Your task to perform on an android device: uninstall "WhatsApp Messenger" Image 0: 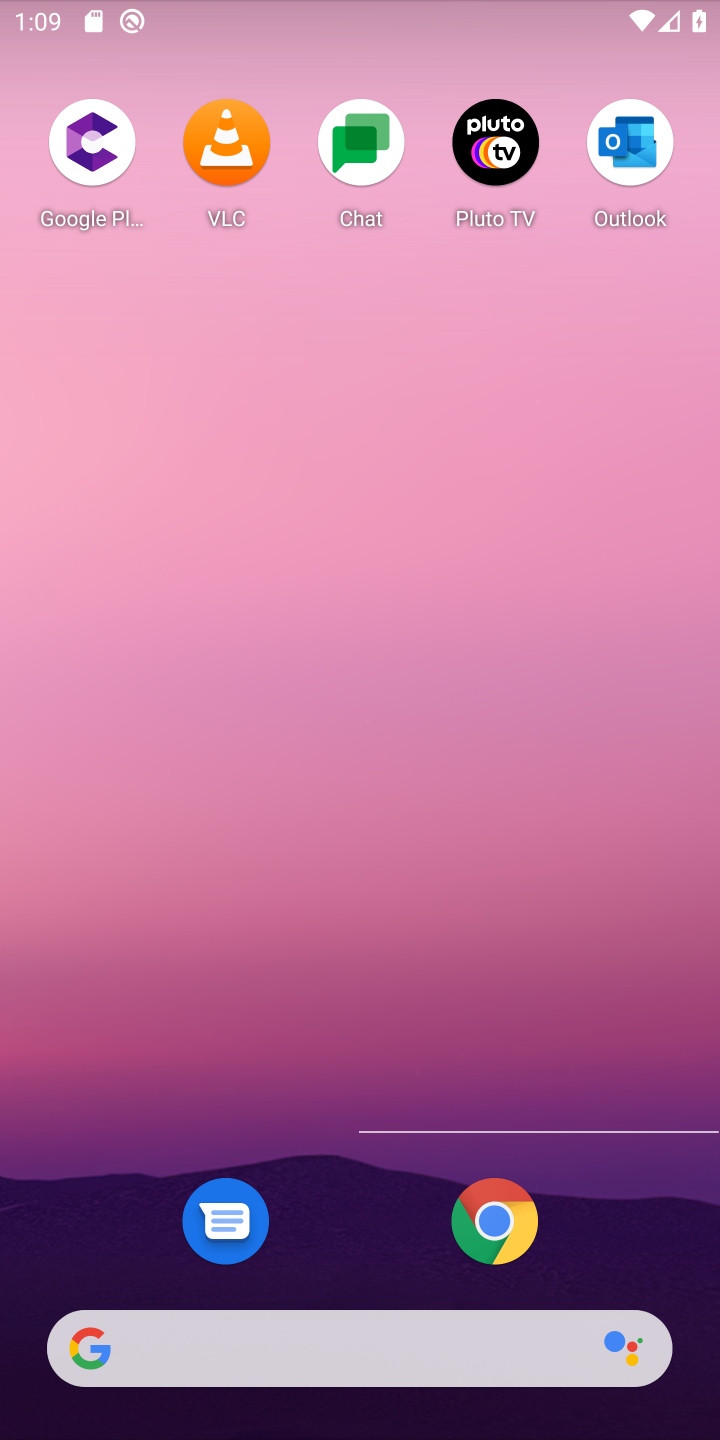
Step 0: press home button
Your task to perform on an android device: uninstall "WhatsApp Messenger" Image 1: 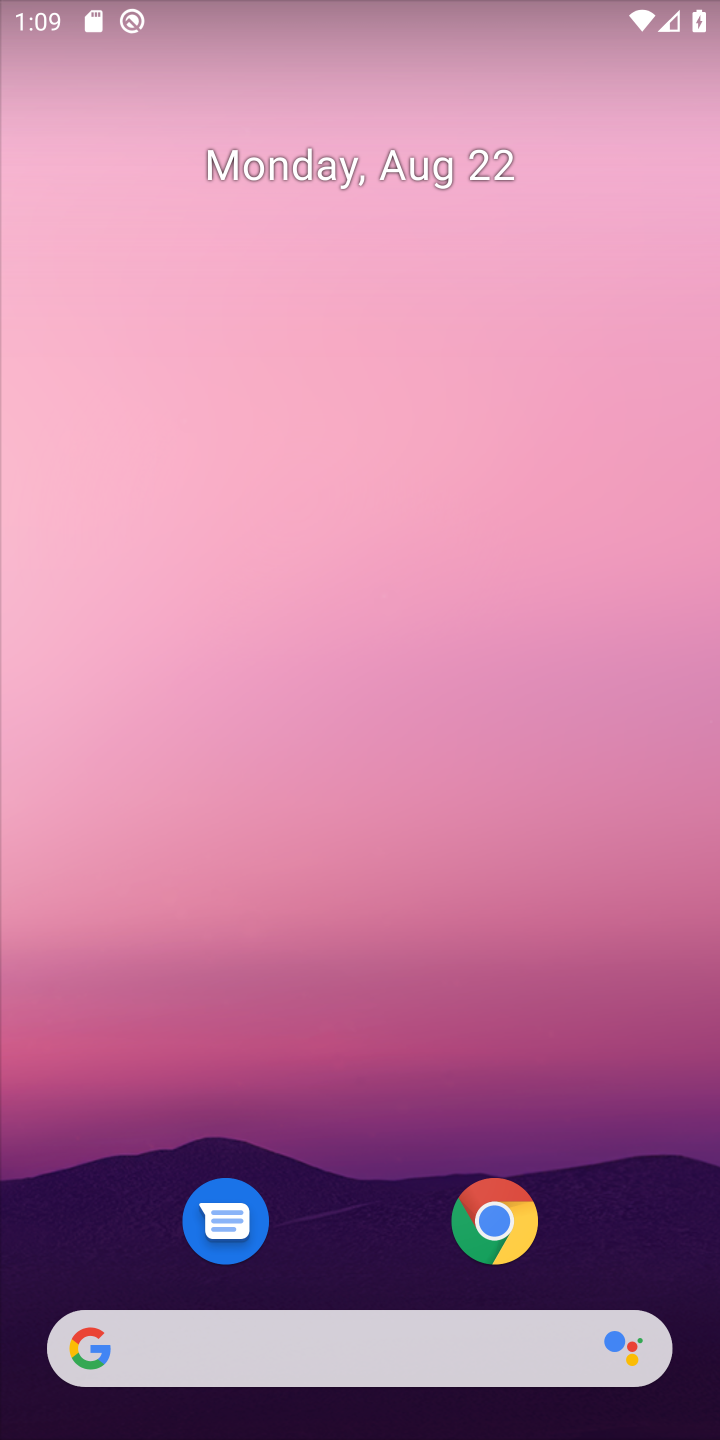
Step 1: drag from (346, 1189) to (299, 31)
Your task to perform on an android device: uninstall "WhatsApp Messenger" Image 2: 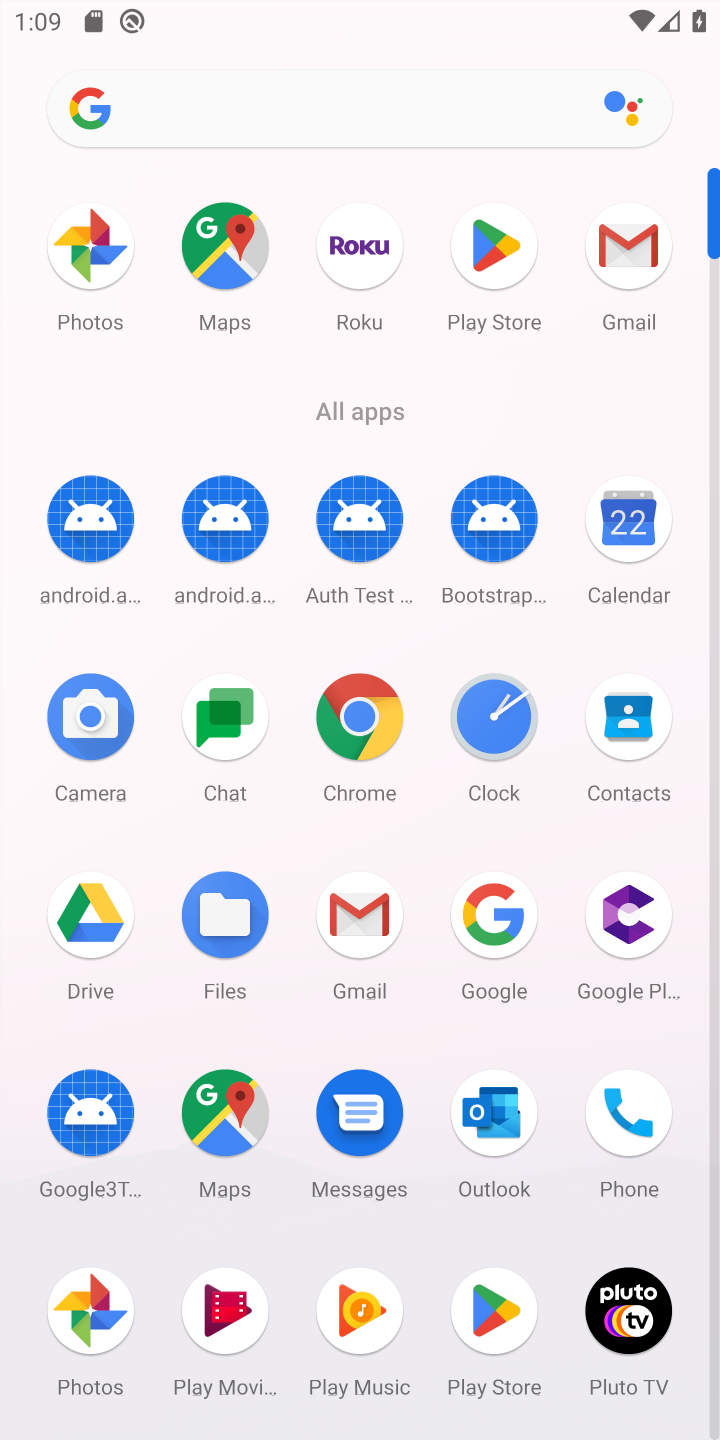
Step 2: click (484, 240)
Your task to perform on an android device: uninstall "WhatsApp Messenger" Image 3: 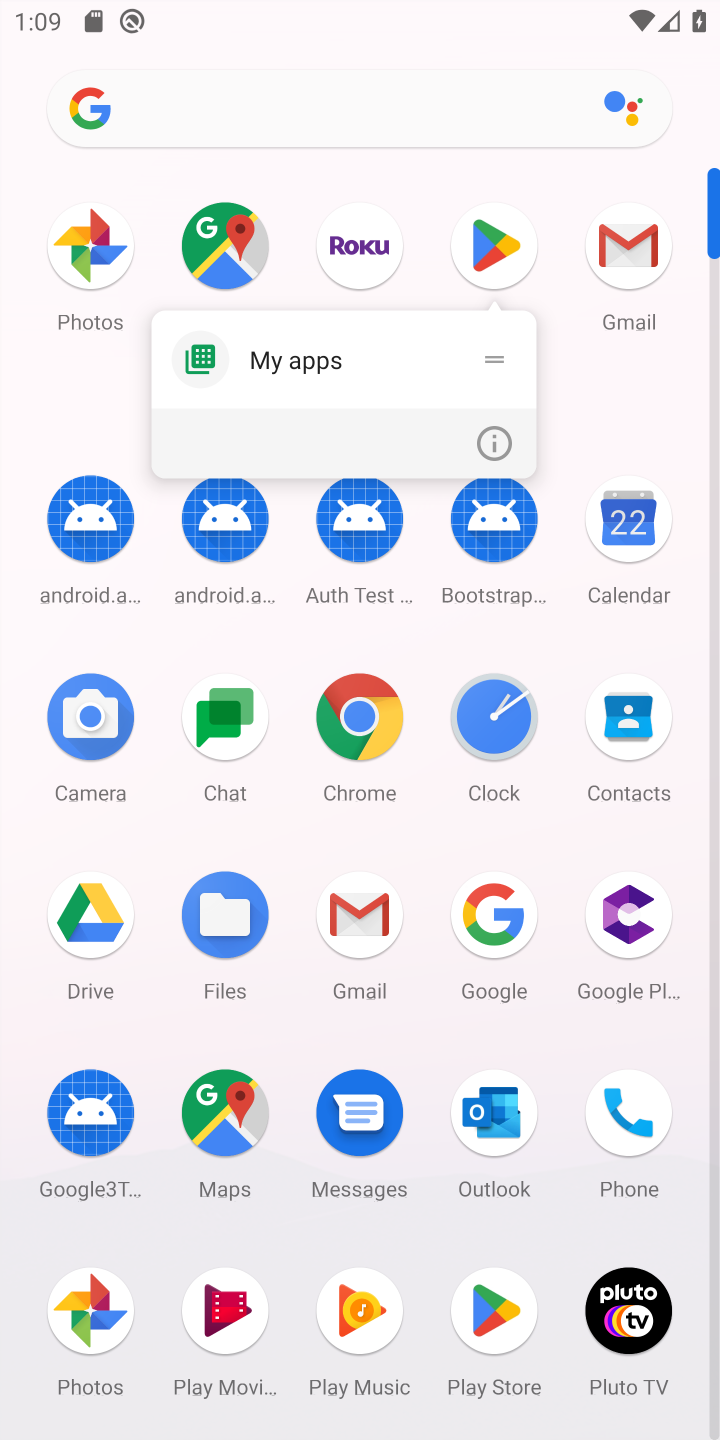
Step 3: click (490, 240)
Your task to perform on an android device: uninstall "WhatsApp Messenger" Image 4: 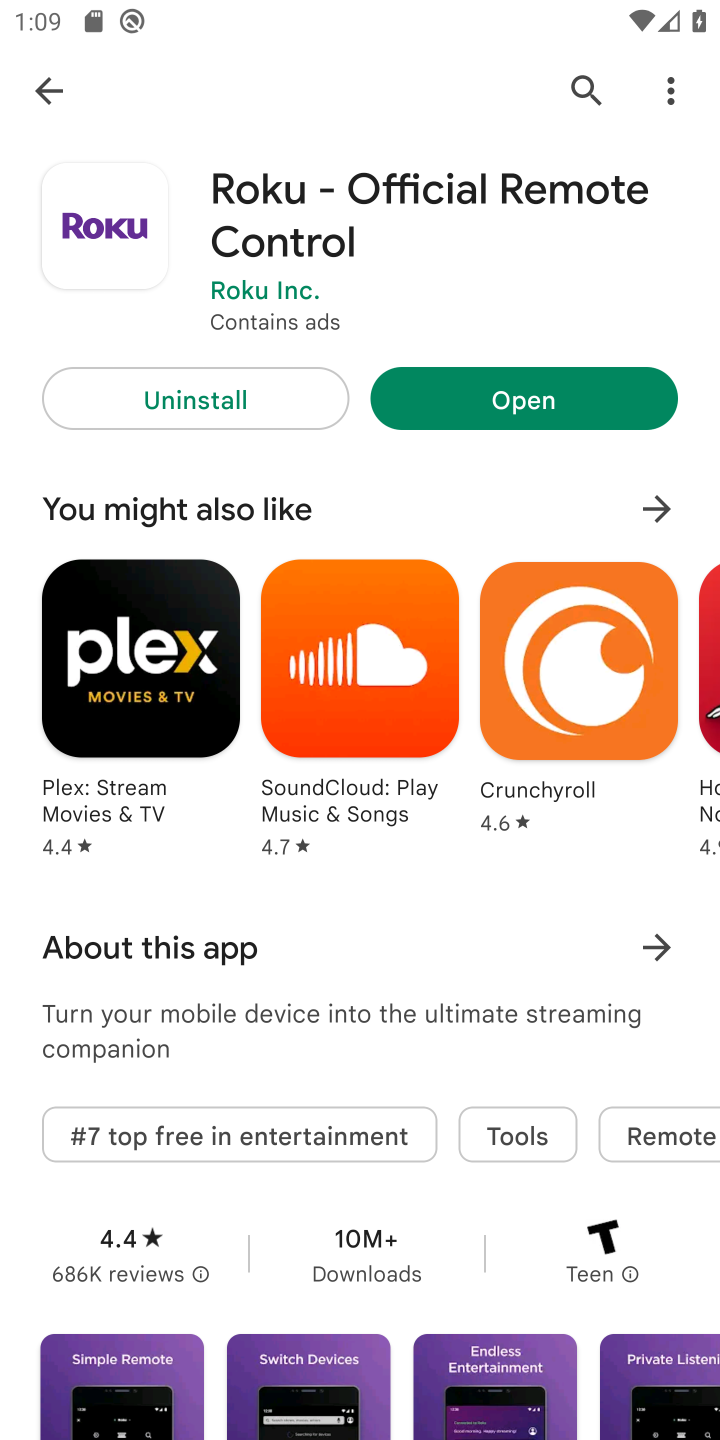
Step 4: click (584, 90)
Your task to perform on an android device: uninstall "WhatsApp Messenger" Image 5: 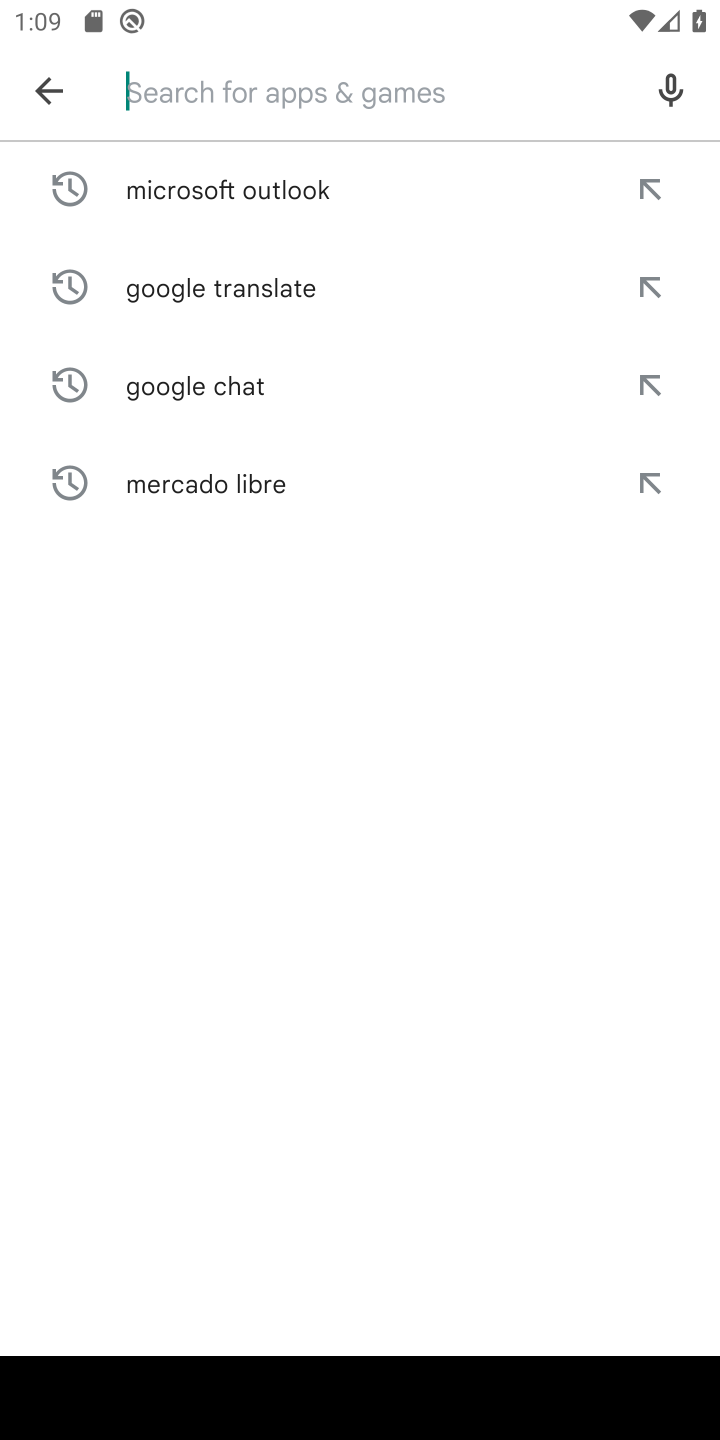
Step 5: type "WhatsApp Messenger"
Your task to perform on an android device: uninstall "WhatsApp Messenger" Image 6: 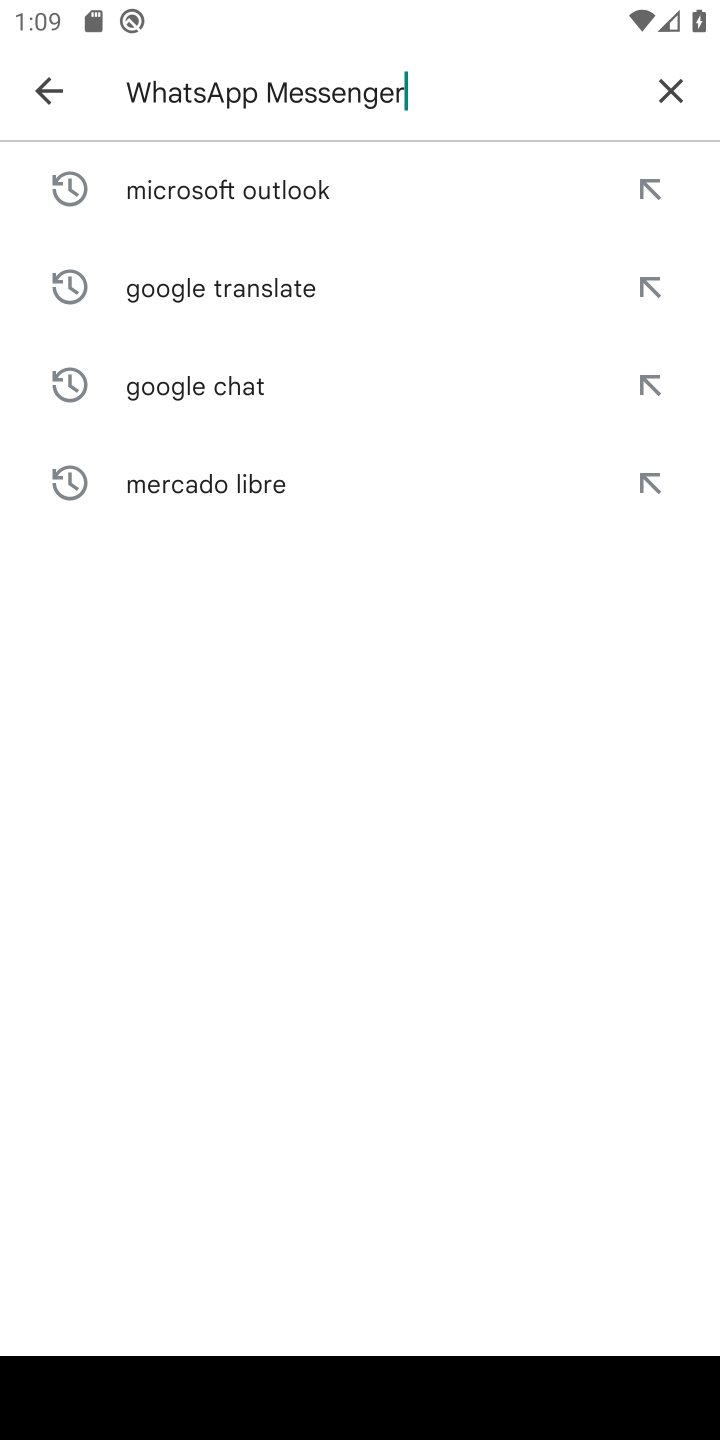
Step 6: type ""
Your task to perform on an android device: uninstall "WhatsApp Messenger" Image 7: 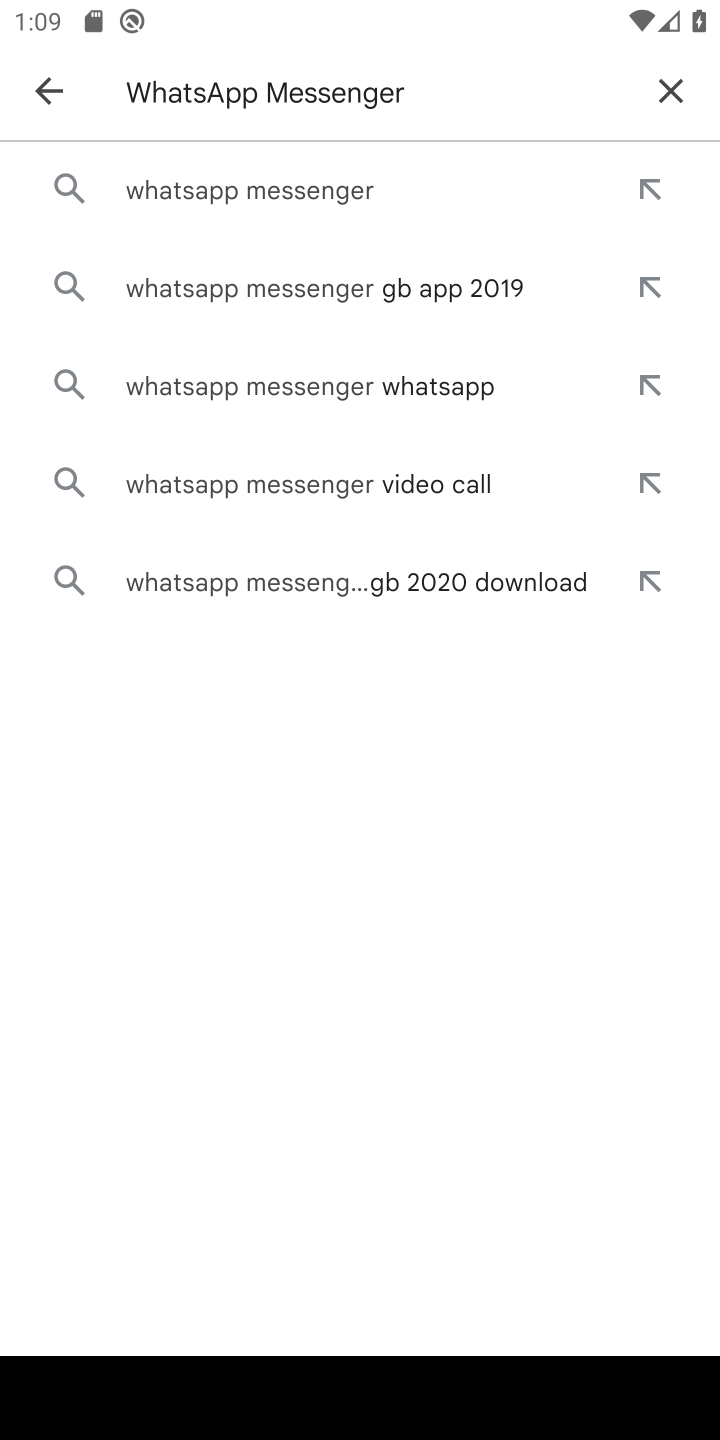
Step 7: click (370, 193)
Your task to perform on an android device: uninstall "WhatsApp Messenger" Image 8: 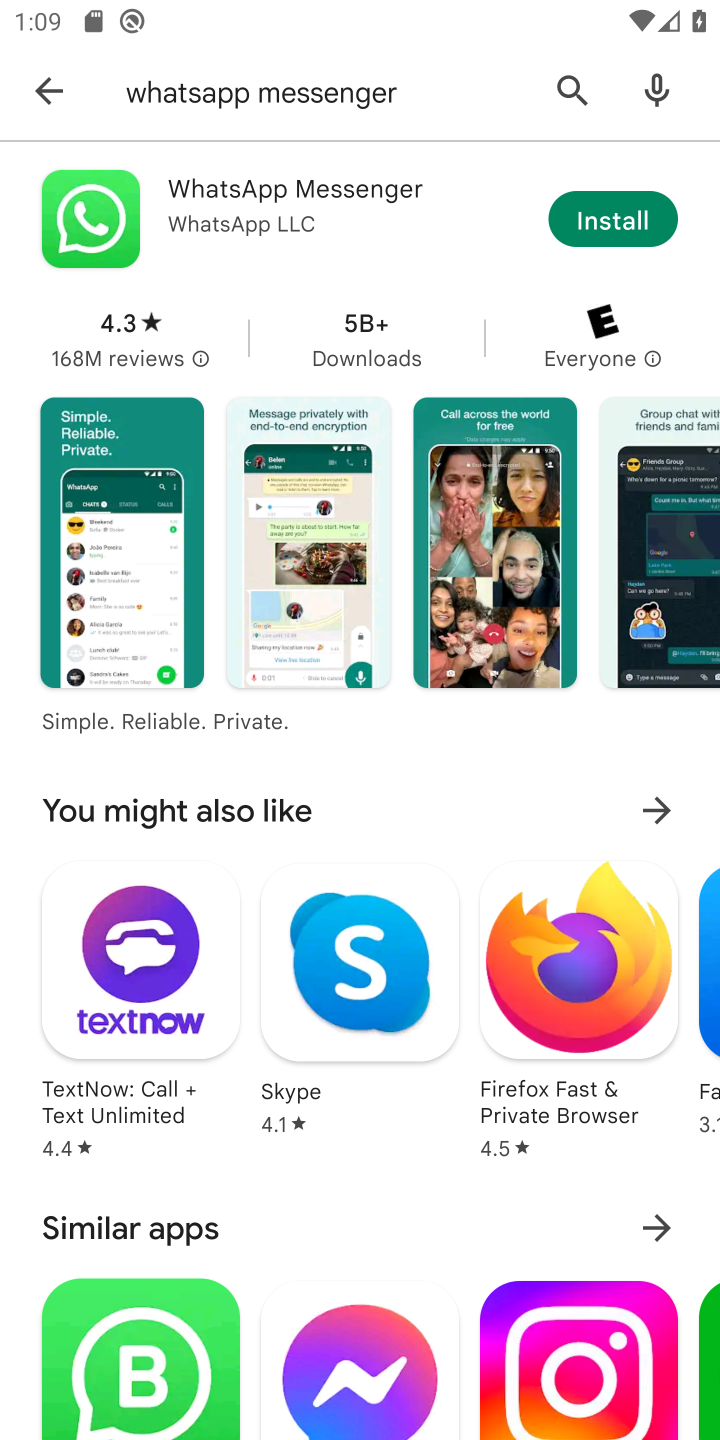
Step 8: task complete